Your task to perform on an android device: move an email to a new category in the gmail app Image 0: 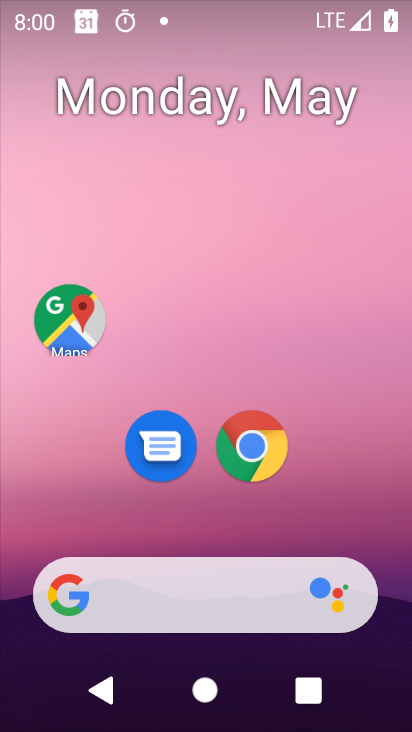
Step 0: drag from (338, 532) to (321, 6)
Your task to perform on an android device: move an email to a new category in the gmail app Image 1: 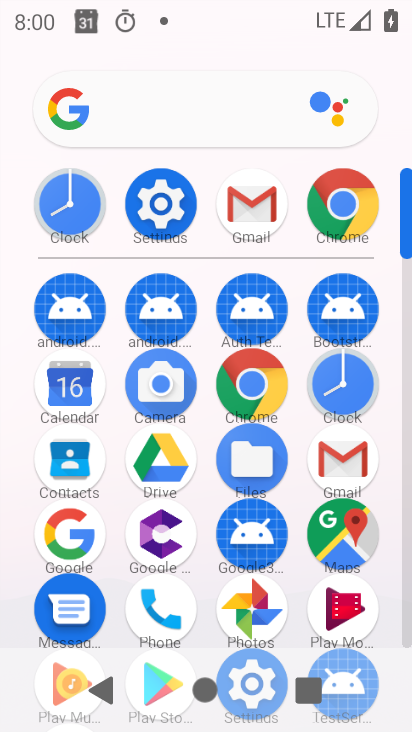
Step 1: click (246, 204)
Your task to perform on an android device: move an email to a new category in the gmail app Image 2: 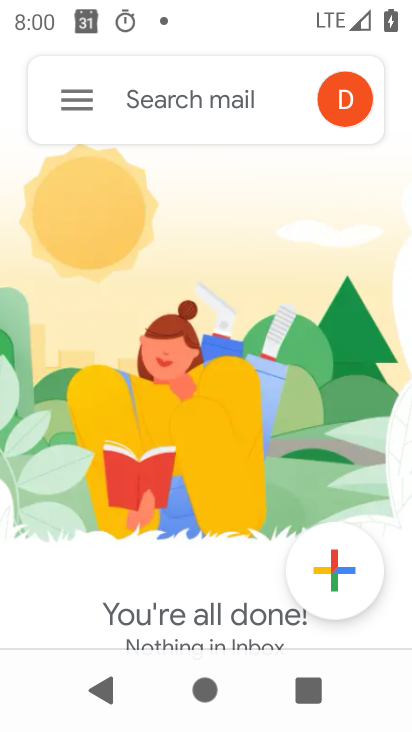
Step 2: click (69, 104)
Your task to perform on an android device: move an email to a new category in the gmail app Image 3: 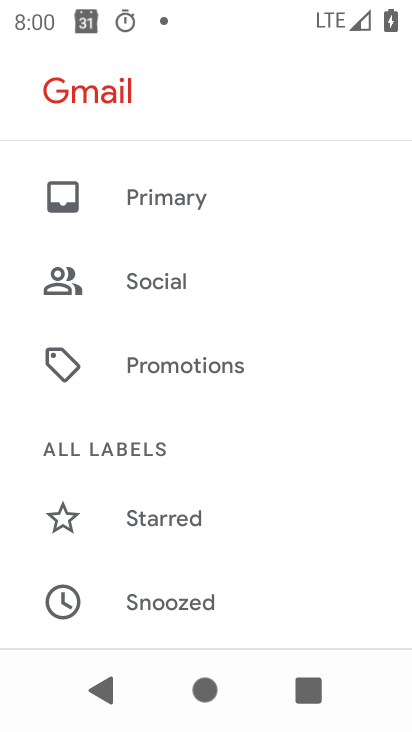
Step 3: drag from (268, 543) to (273, 93)
Your task to perform on an android device: move an email to a new category in the gmail app Image 4: 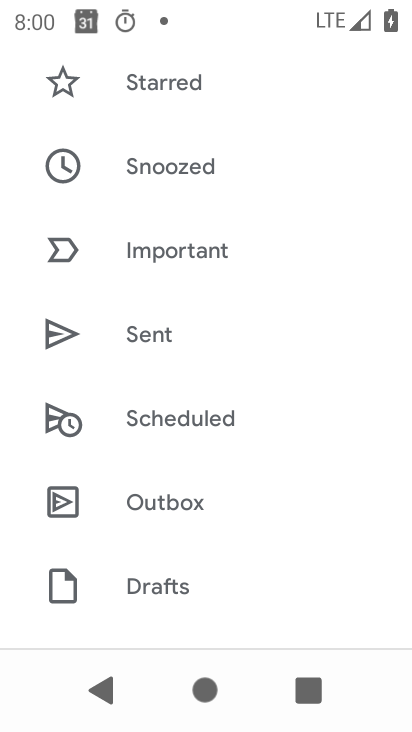
Step 4: drag from (267, 540) to (271, 153)
Your task to perform on an android device: move an email to a new category in the gmail app Image 5: 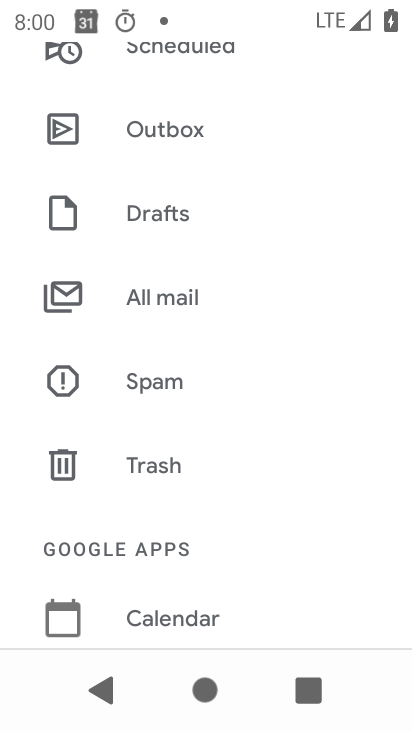
Step 5: click (181, 306)
Your task to perform on an android device: move an email to a new category in the gmail app Image 6: 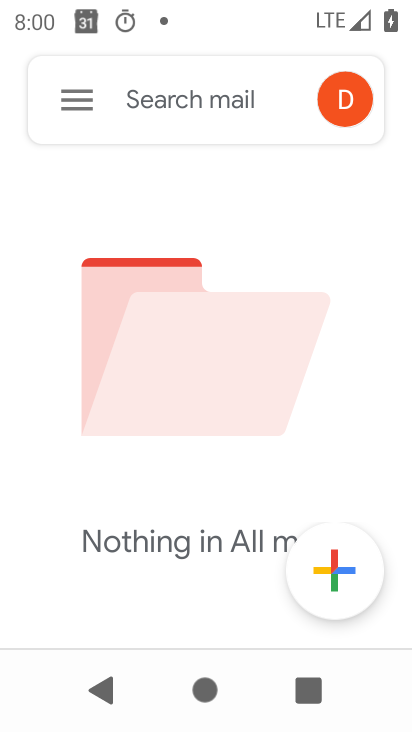
Step 6: task complete